Your task to perform on an android device: Search for the best gaming mouses on Amazon. Image 0: 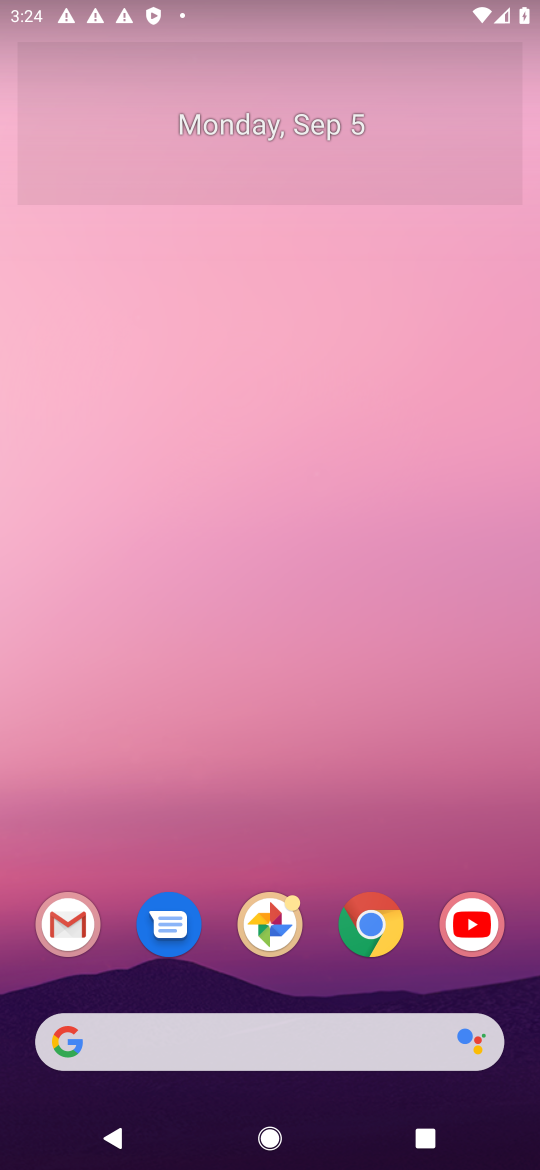
Step 0: drag from (321, 1022) to (375, 428)
Your task to perform on an android device: Search for the best gaming mouses on Amazon. Image 1: 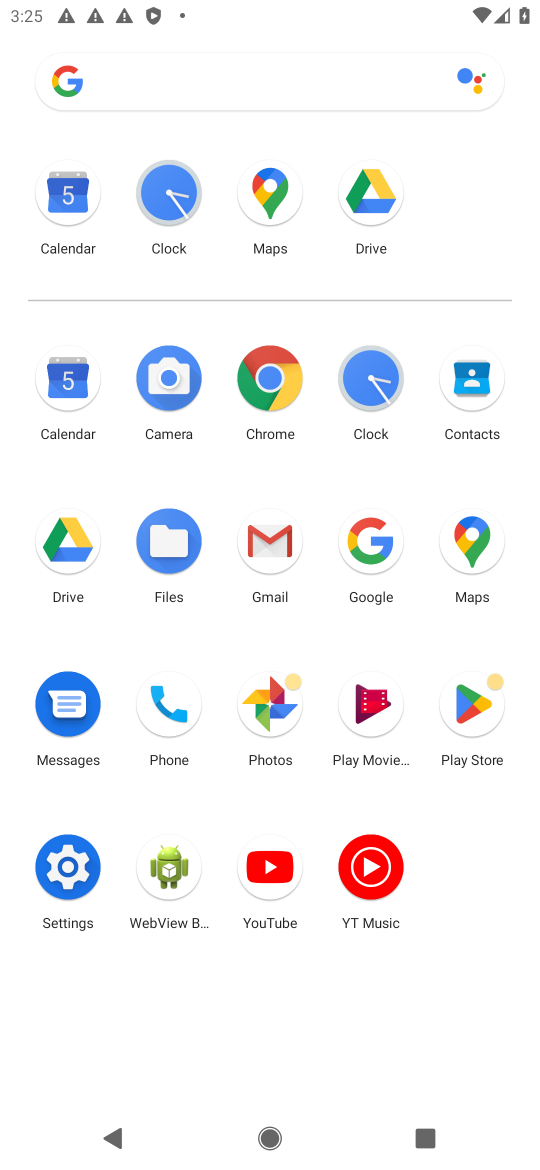
Step 1: click (266, 402)
Your task to perform on an android device: Search for the best gaming mouses on Amazon. Image 2: 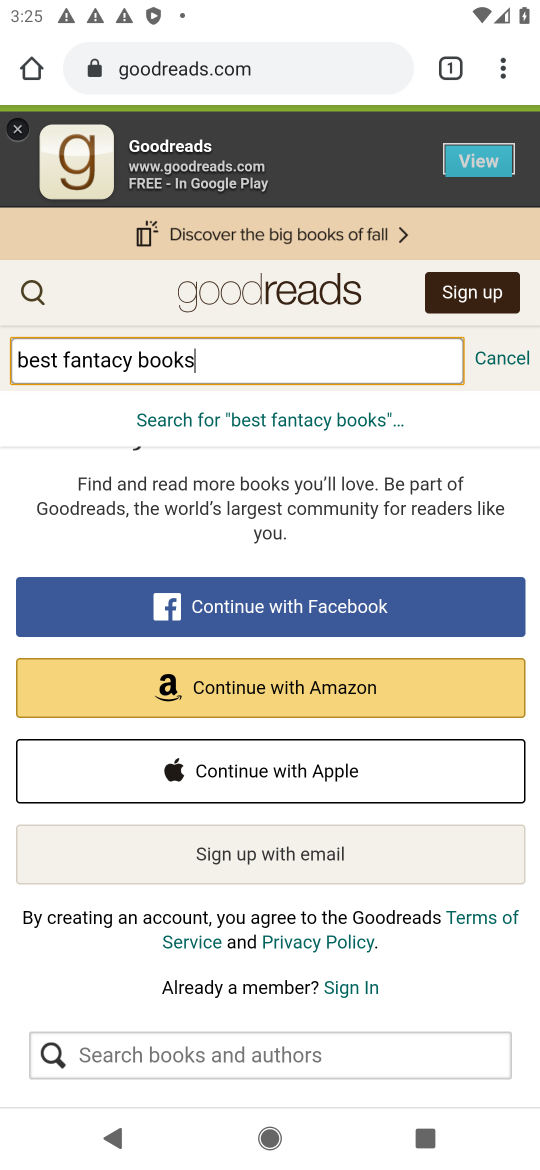
Step 2: click (261, 77)
Your task to perform on an android device: Search for the best gaming mouses on Amazon. Image 3: 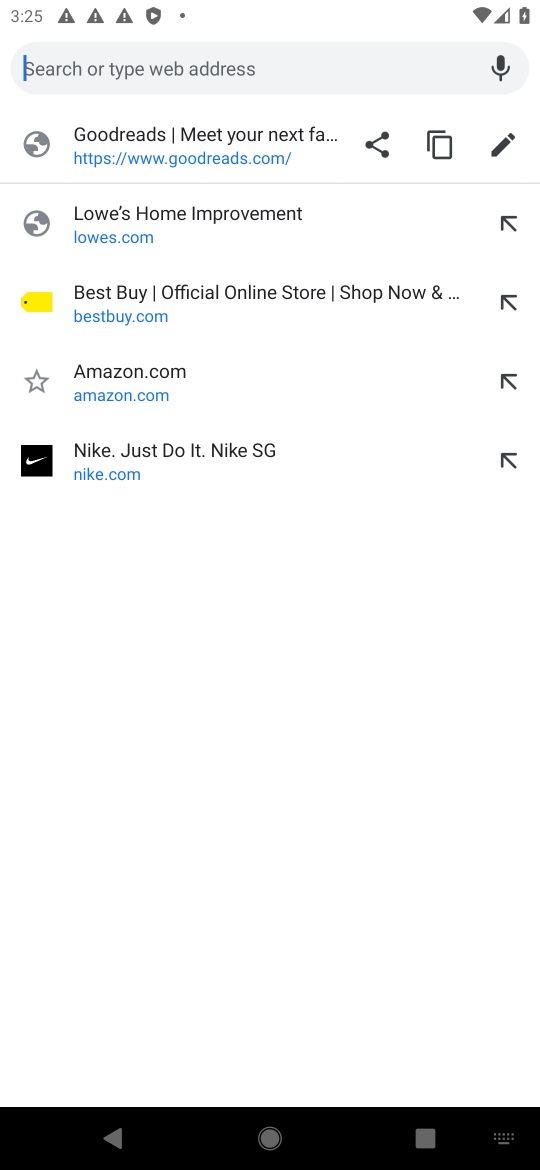
Step 3: type "amzon"
Your task to perform on an android device: Search for the best gaming mouses on Amazon. Image 4: 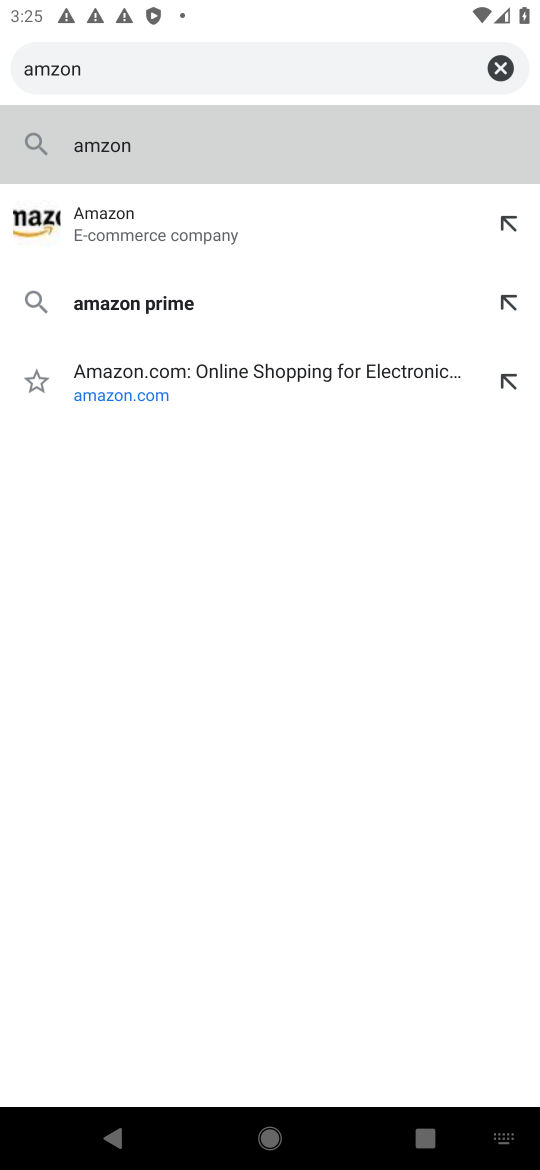
Step 4: click (165, 145)
Your task to perform on an android device: Search for the best gaming mouses on Amazon. Image 5: 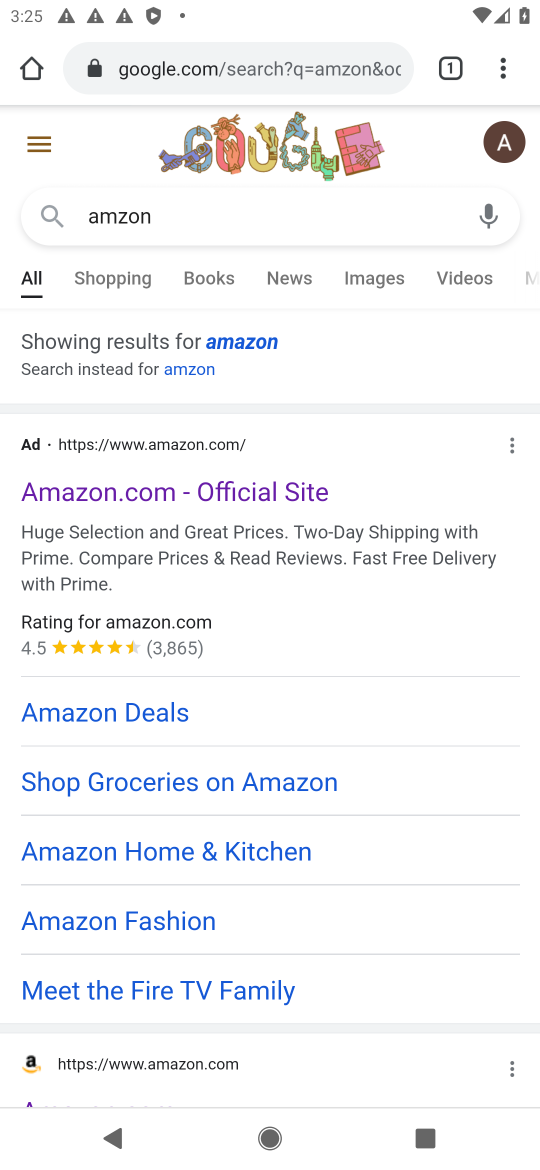
Step 5: click (357, 434)
Your task to perform on an android device: Search for the best gaming mouses on Amazon. Image 6: 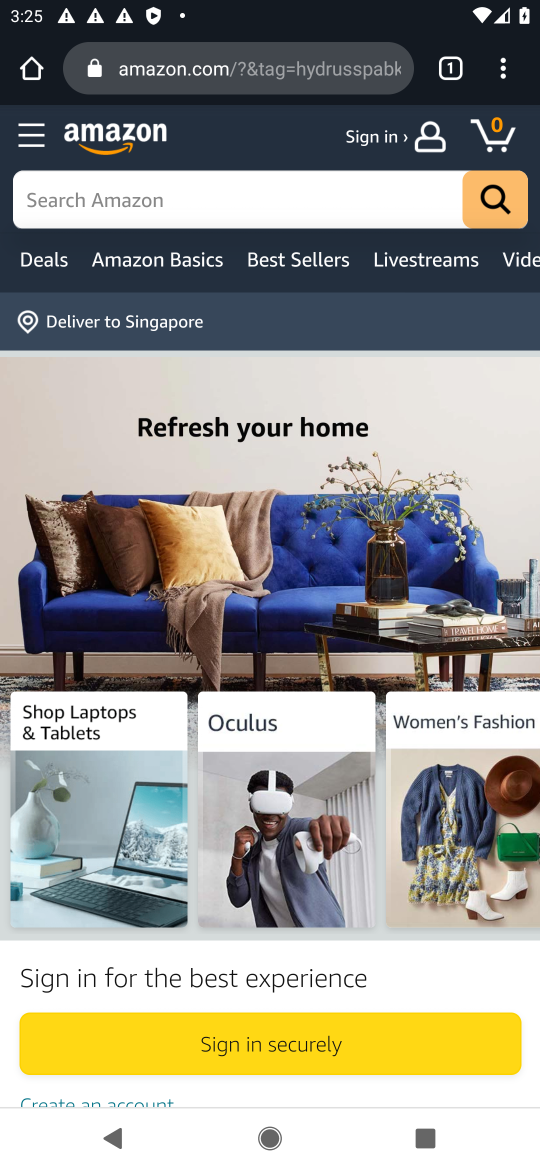
Step 6: click (275, 198)
Your task to perform on an android device: Search for the best gaming mouses on Amazon. Image 7: 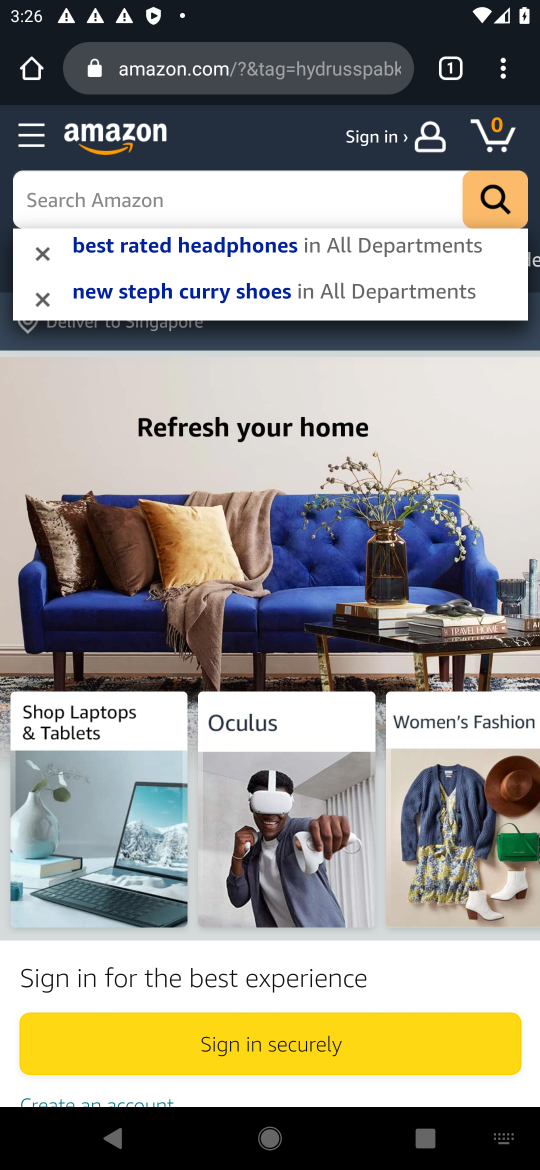
Step 7: type "best gaming mouses"
Your task to perform on an android device: Search for the best gaming mouses on Amazon. Image 8: 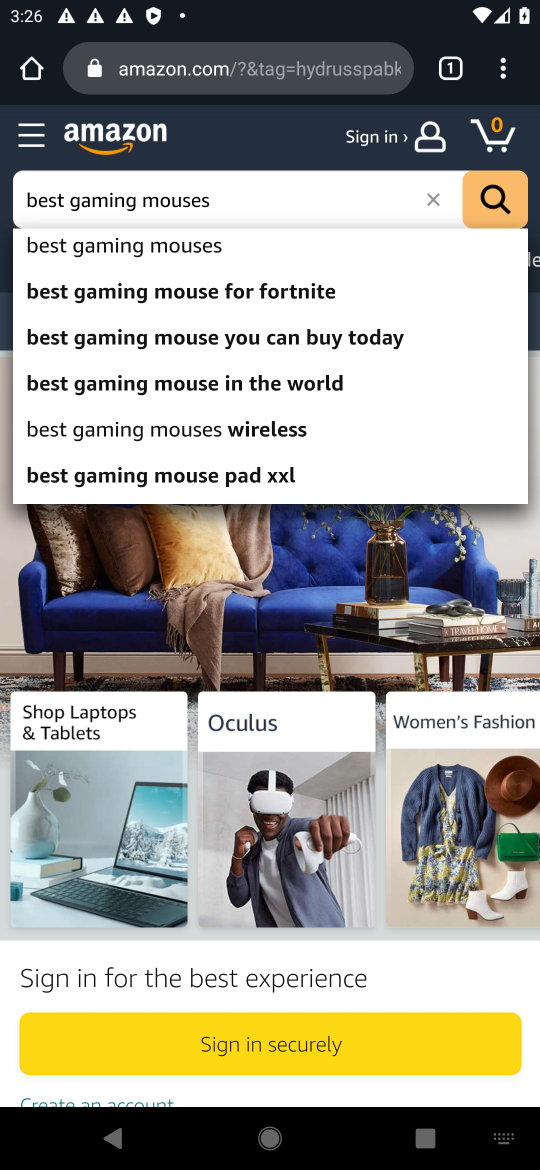
Step 8: click (164, 257)
Your task to perform on an android device: Search for the best gaming mouses on Amazon. Image 9: 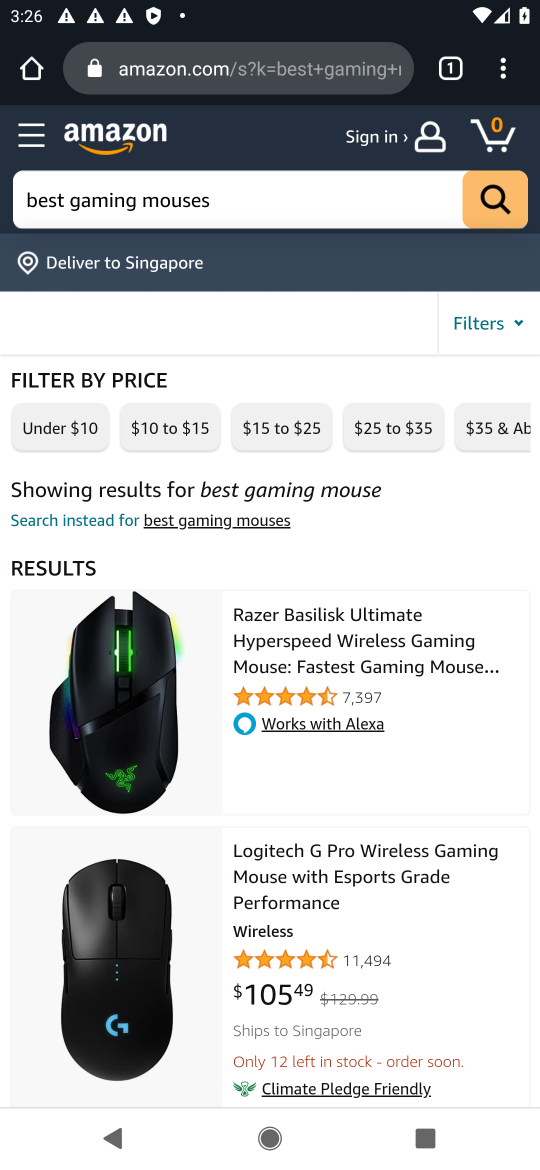
Step 9: task complete